Your task to perform on an android device: Open ESPN.com Image 0: 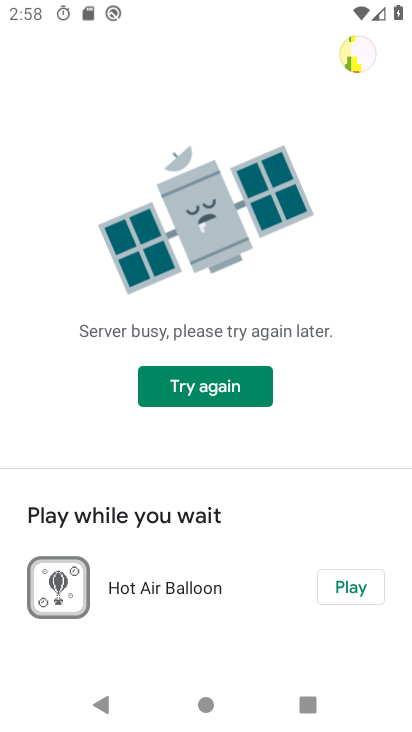
Step 0: press home button
Your task to perform on an android device: Open ESPN.com Image 1: 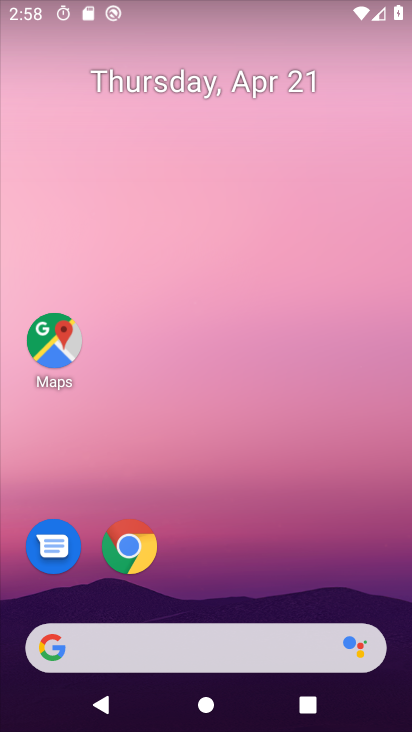
Step 1: drag from (181, 295) to (206, 76)
Your task to perform on an android device: Open ESPN.com Image 2: 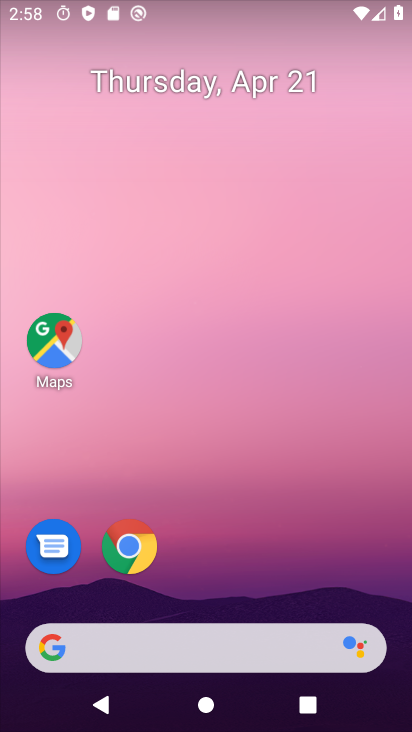
Step 2: drag from (210, 603) to (185, 5)
Your task to perform on an android device: Open ESPN.com Image 3: 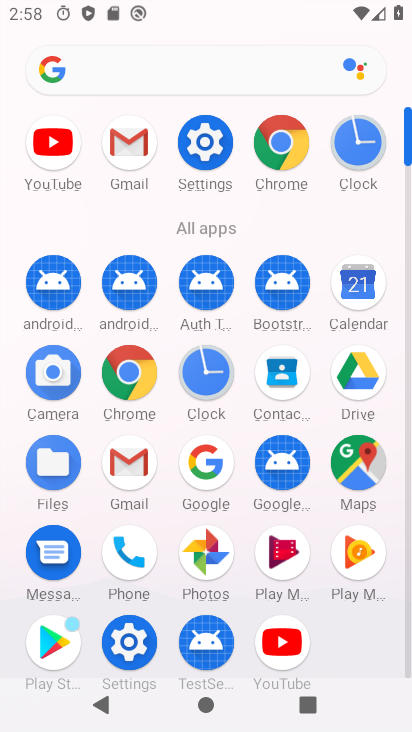
Step 3: click (130, 384)
Your task to perform on an android device: Open ESPN.com Image 4: 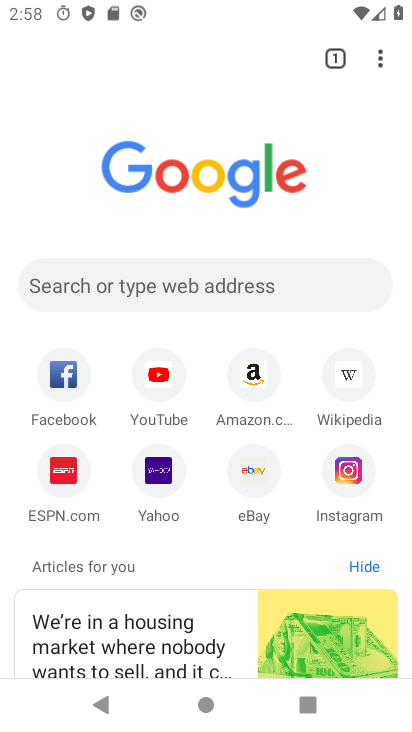
Step 4: click (54, 475)
Your task to perform on an android device: Open ESPN.com Image 5: 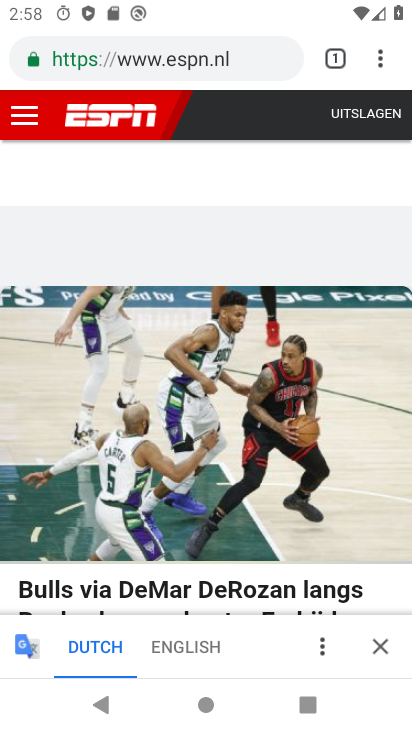
Step 5: task complete